Your task to perform on an android device: set an alarm Image 0: 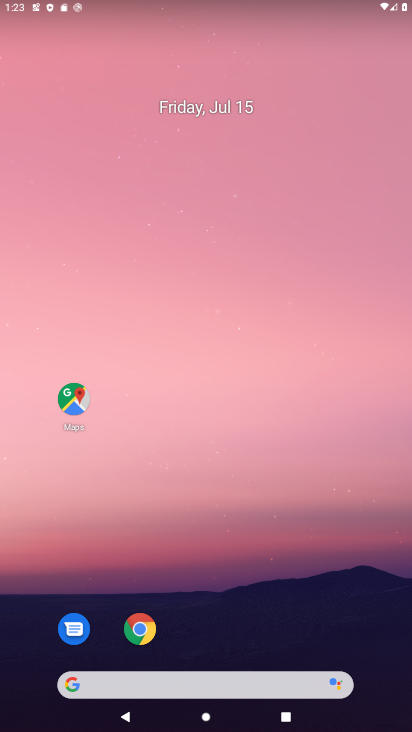
Step 0: drag from (293, 579) to (174, 39)
Your task to perform on an android device: set an alarm Image 1: 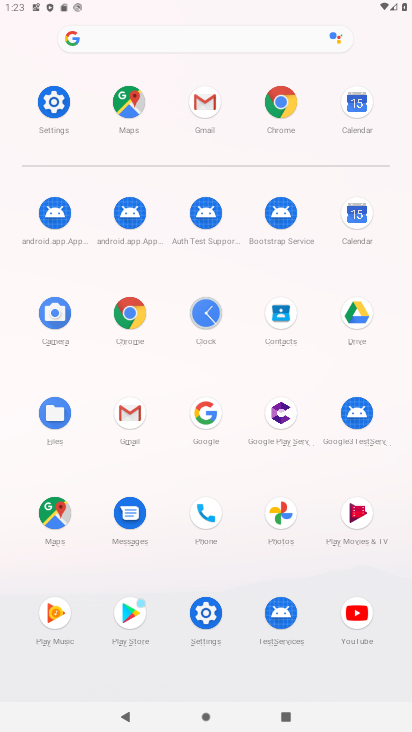
Step 1: click (212, 311)
Your task to perform on an android device: set an alarm Image 2: 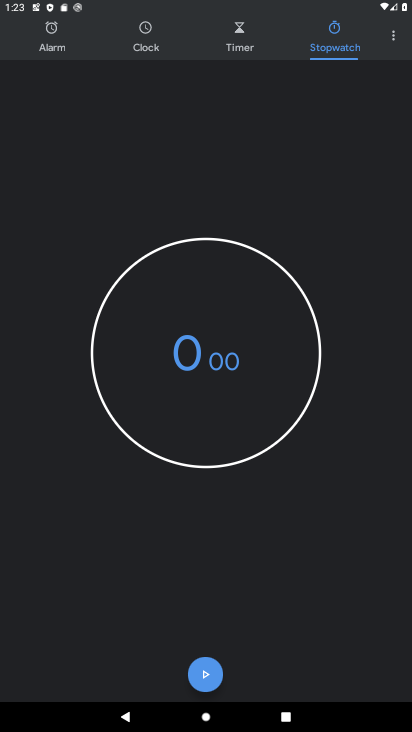
Step 2: click (60, 46)
Your task to perform on an android device: set an alarm Image 3: 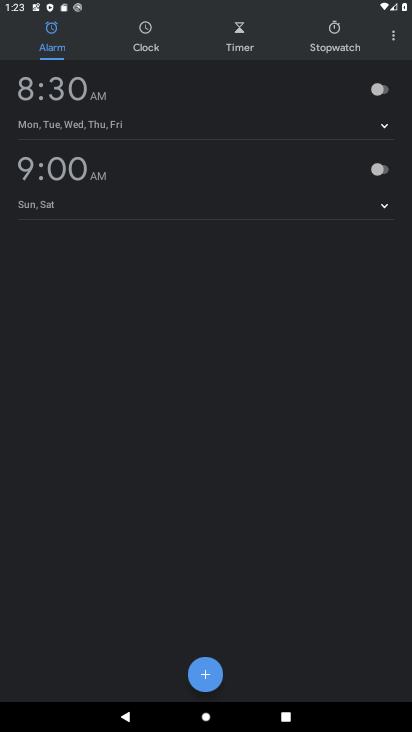
Step 3: click (208, 667)
Your task to perform on an android device: set an alarm Image 4: 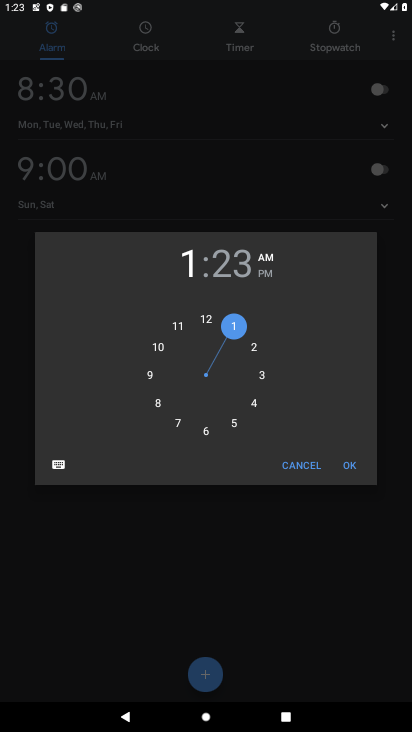
Step 4: click (345, 464)
Your task to perform on an android device: set an alarm Image 5: 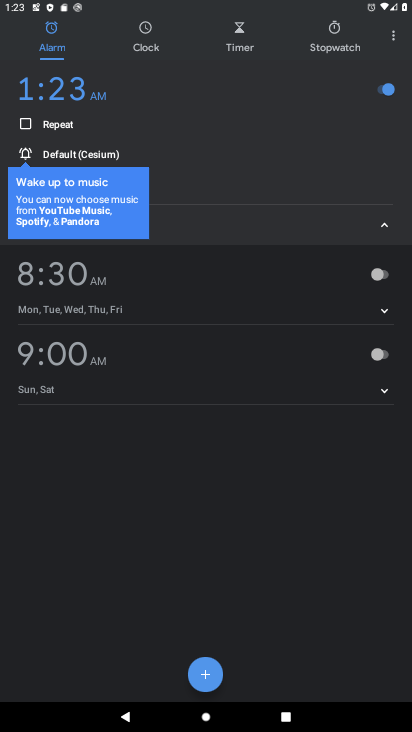
Step 5: task complete